Your task to perform on an android device: change notification settings in the gmail app Image 0: 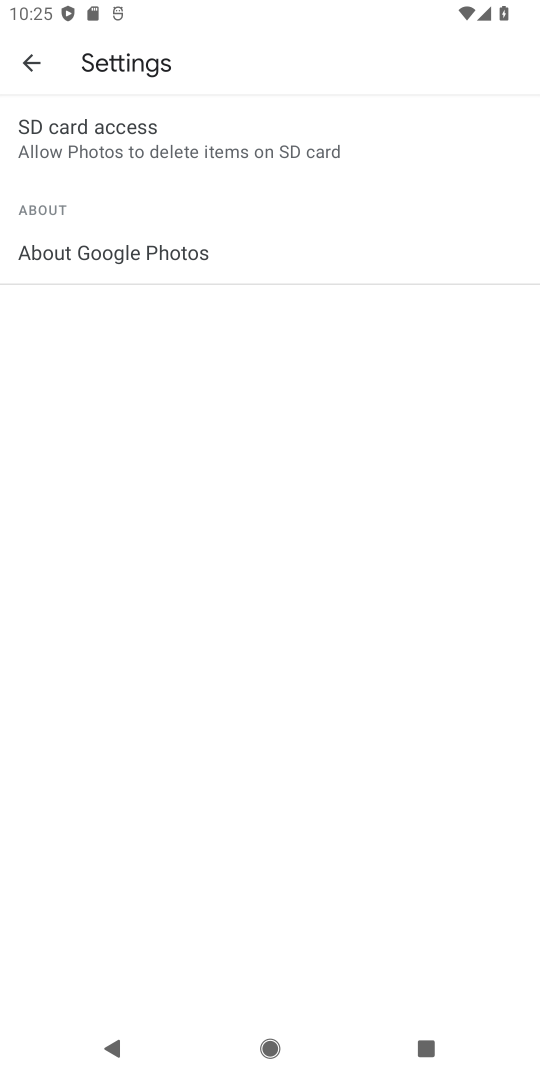
Step 0: press home button
Your task to perform on an android device: change notification settings in the gmail app Image 1: 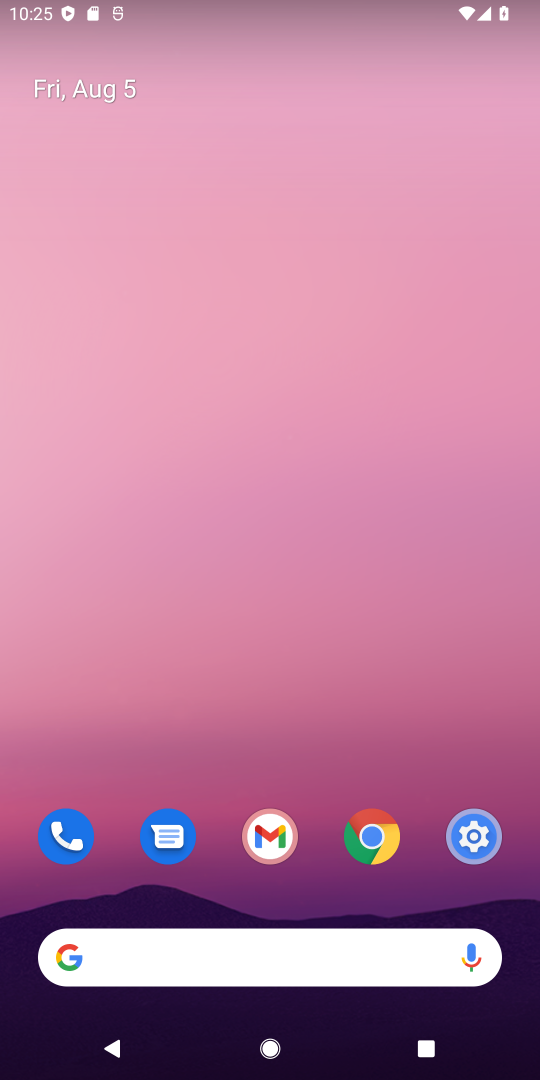
Step 1: drag from (369, 677) to (372, 110)
Your task to perform on an android device: change notification settings in the gmail app Image 2: 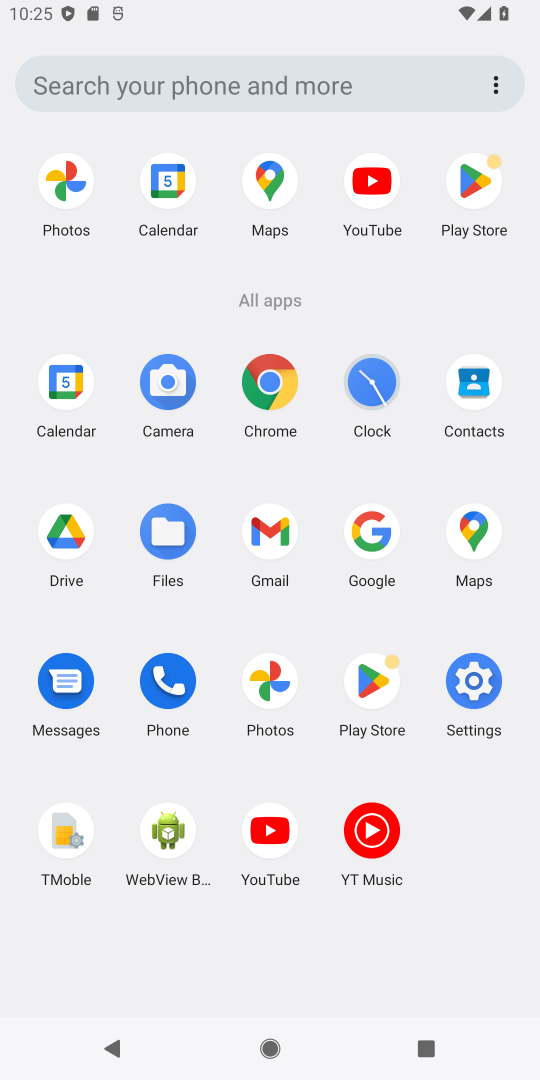
Step 2: click (280, 524)
Your task to perform on an android device: change notification settings in the gmail app Image 3: 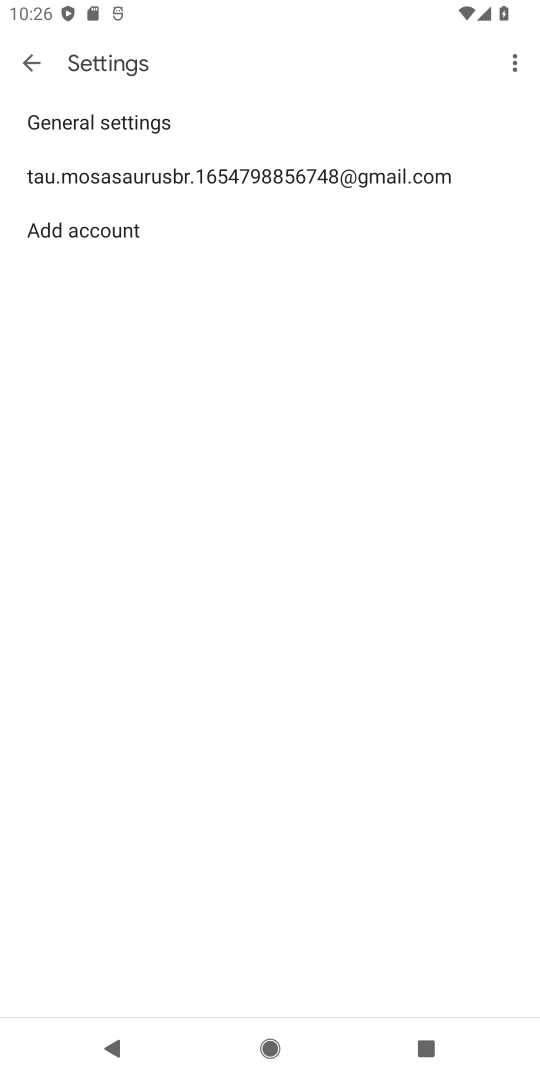
Step 3: click (84, 181)
Your task to perform on an android device: change notification settings in the gmail app Image 4: 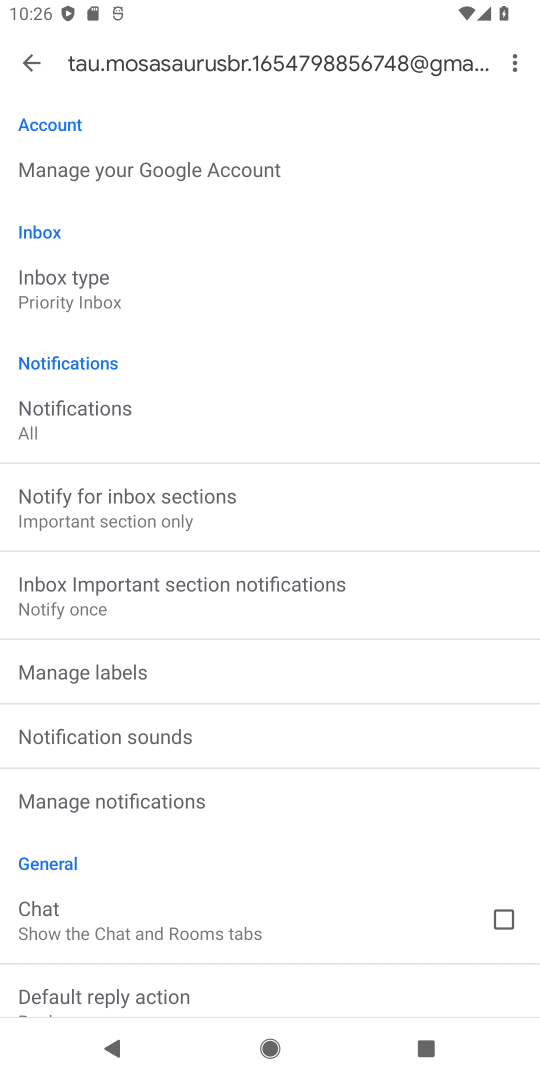
Step 4: click (134, 798)
Your task to perform on an android device: change notification settings in the gmail app Image 5: 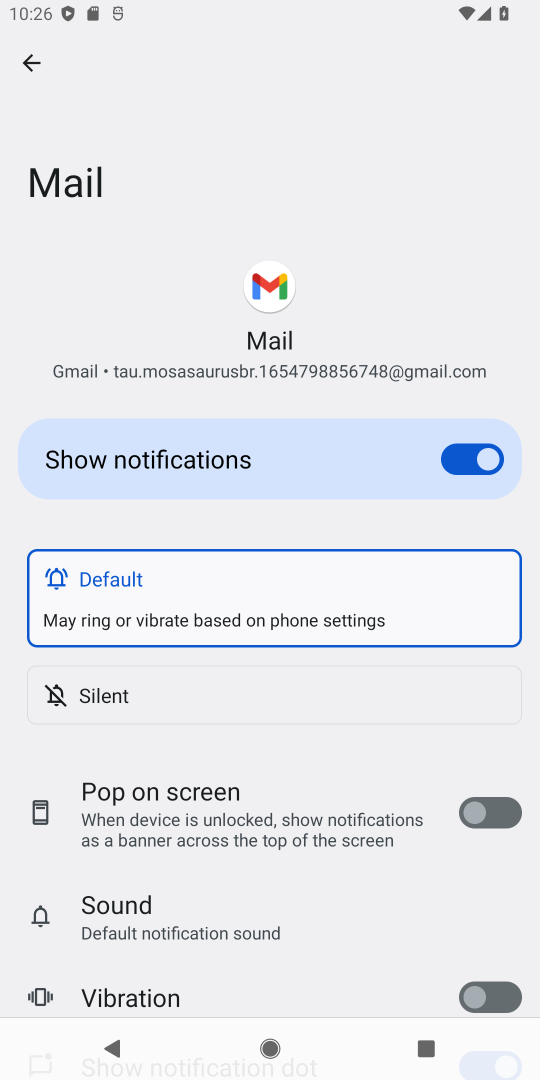
Step 5: click (465, 448)
Your task to perform on an android device: change notification settings in the gmail app Image 6: 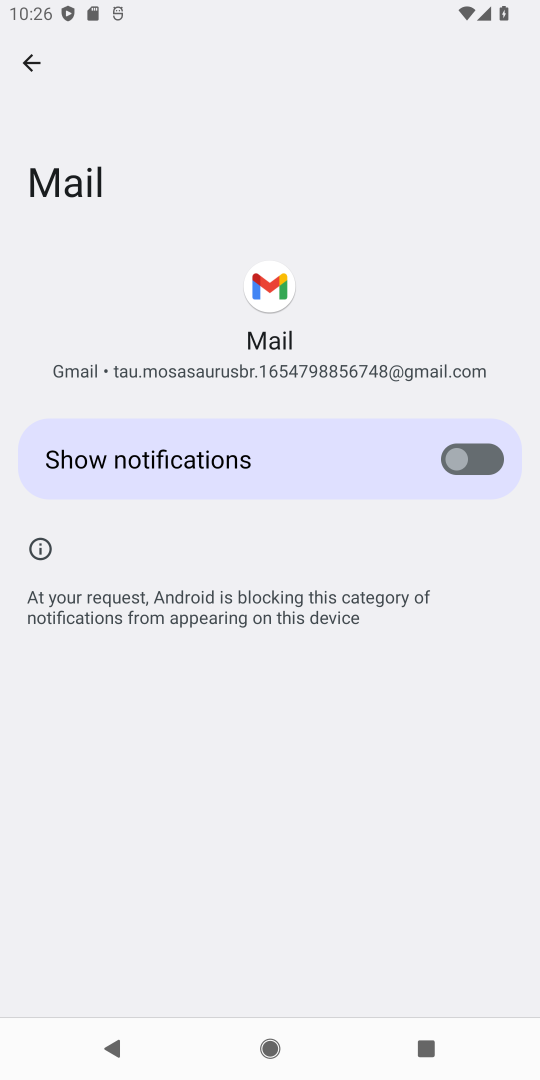
Step 6: task complete